Your task to perform on an android device: change the clock display to show seconds Image 0: 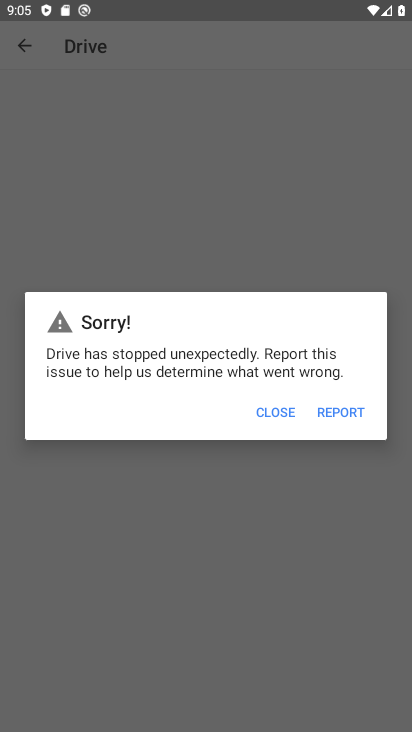
Step 0: press home button
Your task to perform on an android device: change the clock display to show seconds Image 1: 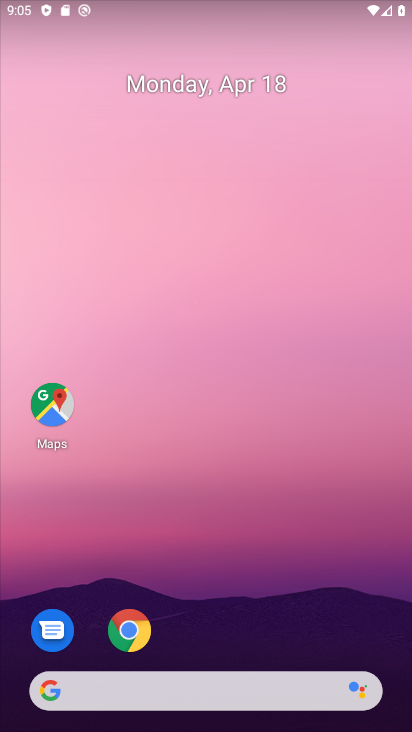
Step 1: drag from (276, 554) to (256, 162)
Your task to perform on an android device: change the clock display to show seconds Image 2: 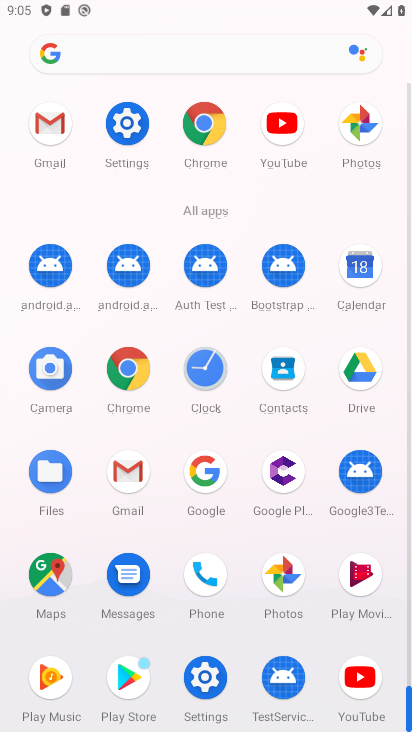
Step 2: click (216, 374)
Your task to perform on an android device: change the clock display to show seconds Image 3: 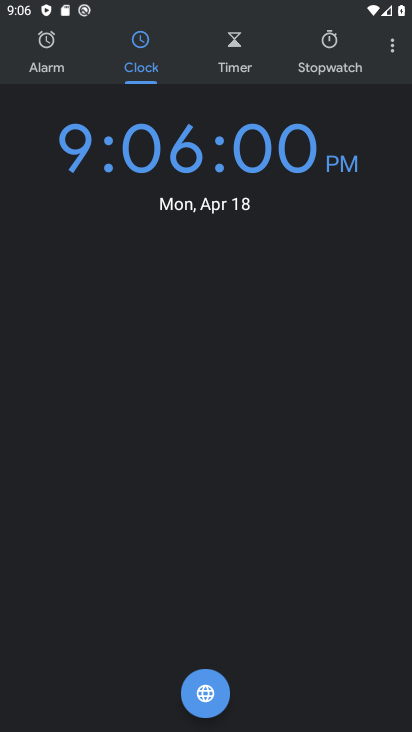
Step 3: click (393, 50)
Your task to perform on an android device: change the clock display to show seconds Image 4: 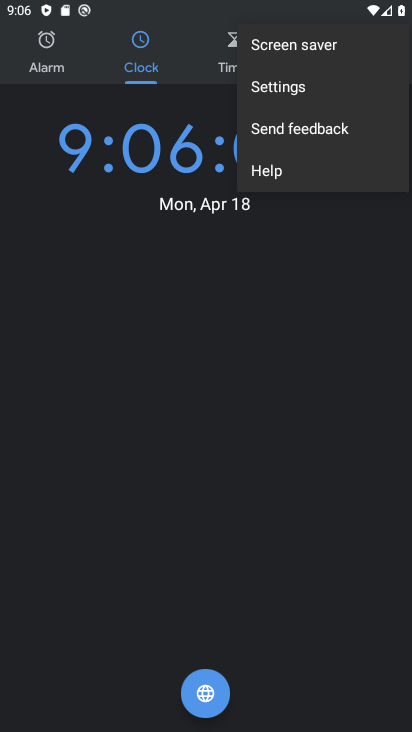
Step 4: click (357, 85)
Your task to perform on an android device: change the clock display to show seconds Image 5: 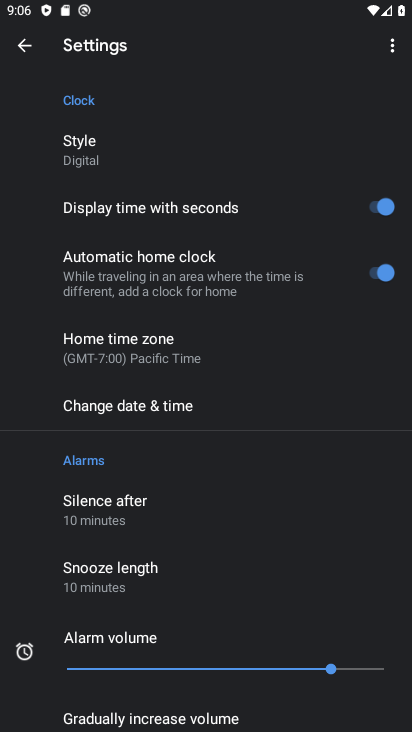
Step 5: click (369, 209)
Your task to perform on an android device: change the clock display to show seconds Image 6: 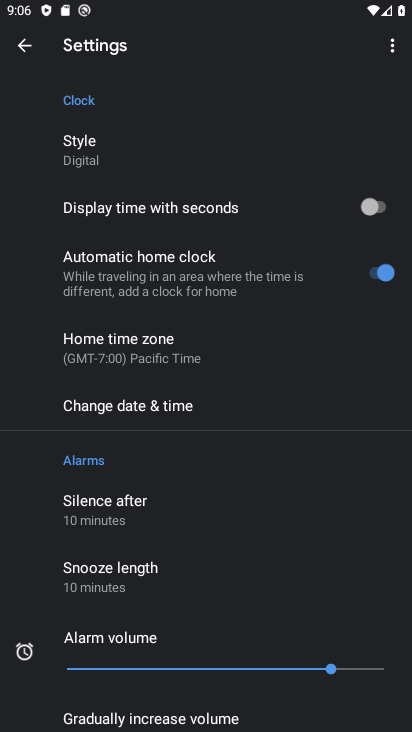
Step 6: task complete